Your task to perform on an android device: Open calendar and show me the fourth week of next month Image 0: 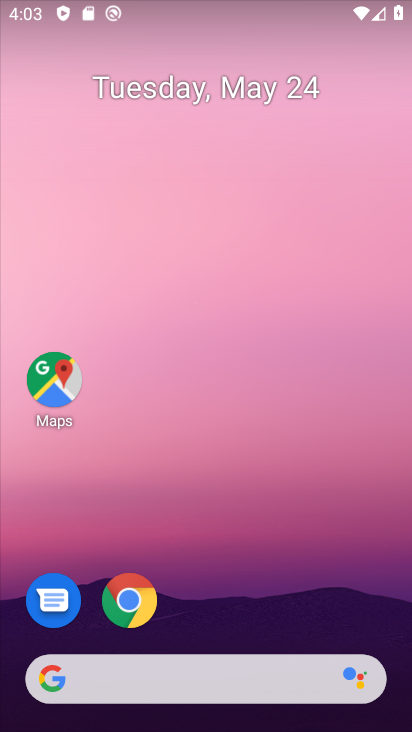
Step 0: drag from (325, 635) to (357, 23)
Your task to perform on an android device: Open calendar and show me the fourth week of next month Image 1: 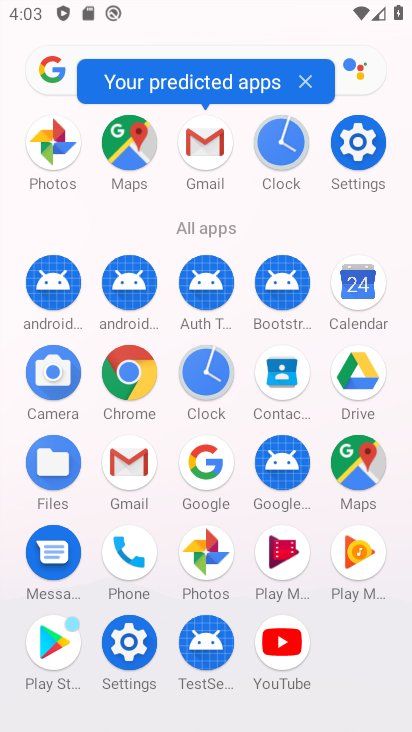
Step 1: click (361, 281)
Your task to perform on an android device: Open calendar and show me the fourth week of next month Image 2: 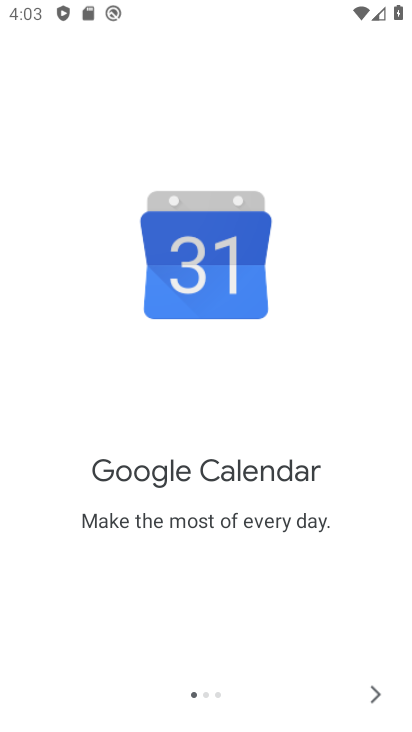
Step 2: click (378, 695)
Your task to perform on an android device: Open calendar and show me the fourth week of next month Image 3: 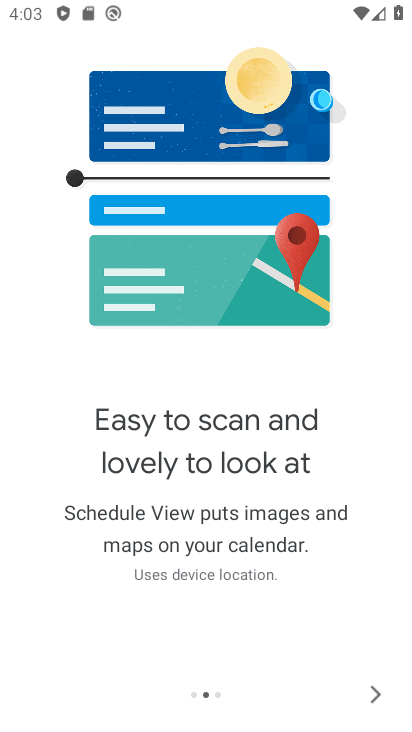
Step 3: click (378, 695)
Your task to perform on an android device: Open calendar and show me the fourth week of next month Image 4: 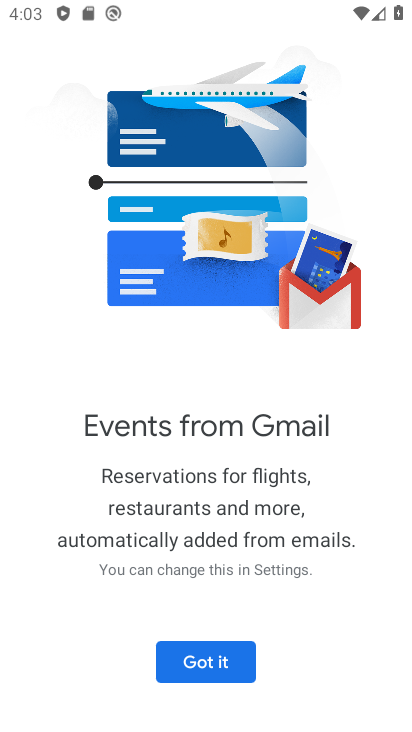
Step 4: click (202, 671)
Your task to perform on an android device: Open calendar and show me the fourth week of next month Image 5: 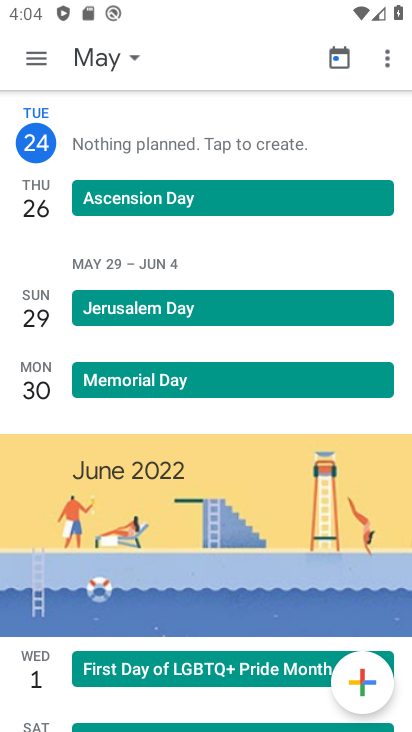
Step 5: click (134, 56)
Your task to perform on an android device: Open calendar and show me the fourth week of next month Image 6: 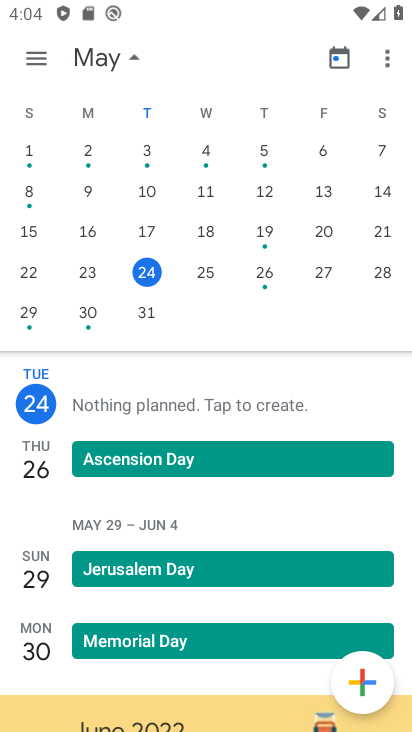
Step 6: drag from (346, 210) to (23, 305)
Your task to perform on an android device: Open calendar and show me the fourth week of next month Image 7: 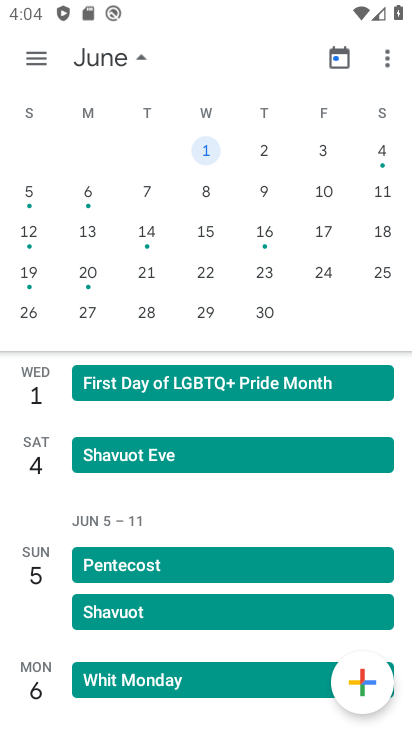
Step 7: click (32, 61)
Your task to perform on an android device: Open calendar and show me the fourth week of next month Image 8: 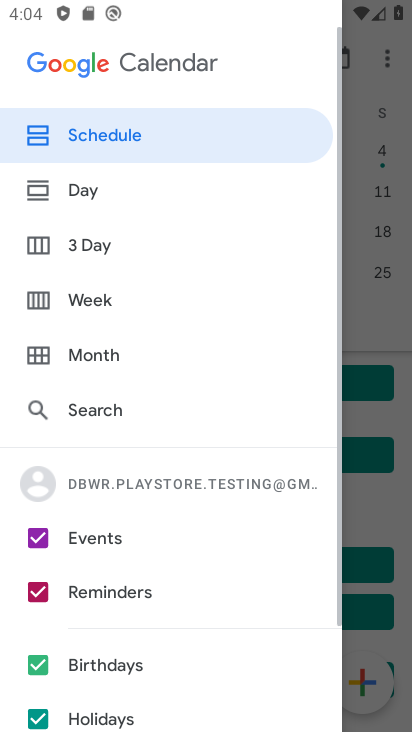
Step 8: click (92, 301)
Your task to perform on an android device: Open calendar and show me the fourth week of next month Image 9: 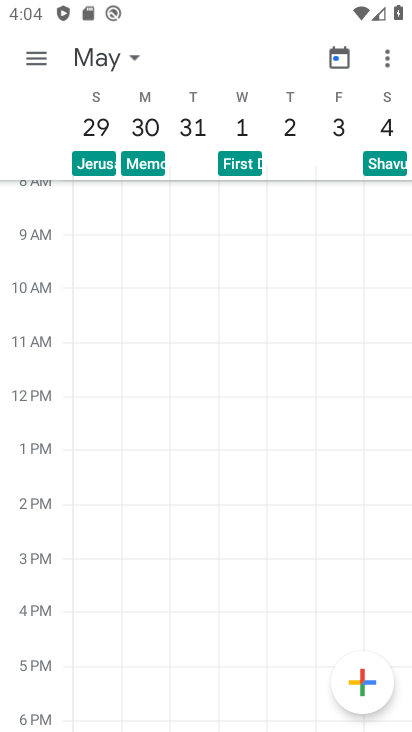
Step 9: task complete